Your task to perform on an android device: manage bookmarks in the chrome app Image 0: 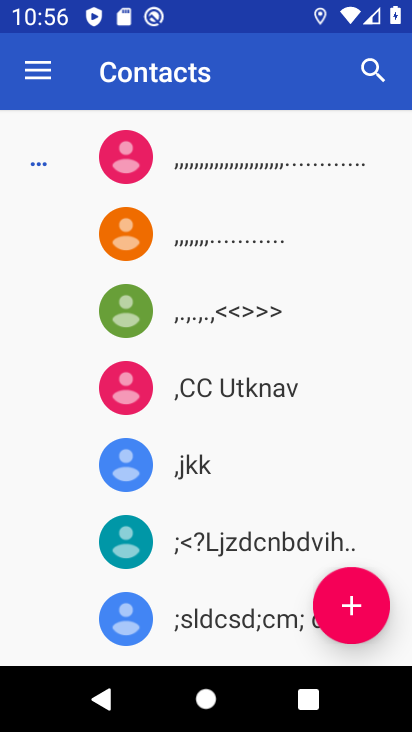
Step 0: press home button
Your task to perform on an android device: manage bookmarks in the chrome app Image 1: 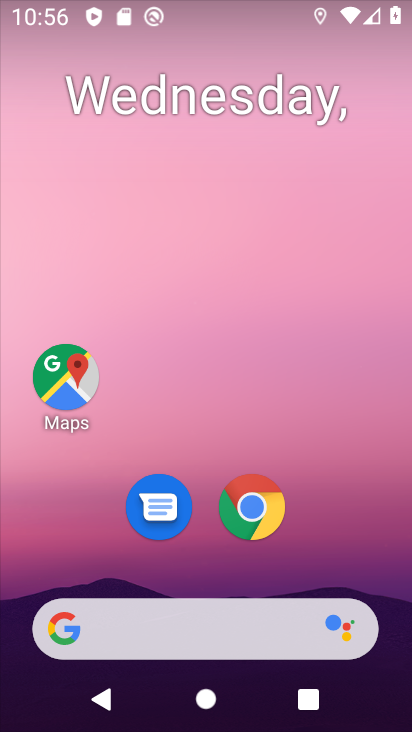
Step 1: drag from (334, 537) to (354, 84)
Your task to perform on an android device: manage bookmarks in the chrome app Image 2: 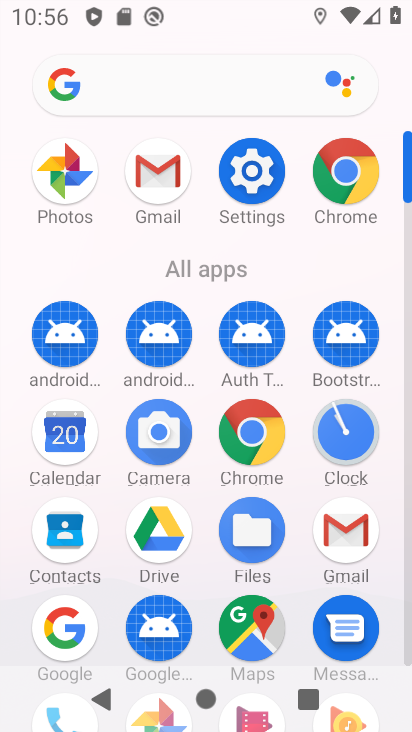
Step 2: click (254, 418)
Your task to perform on an android device: manage bookmarks in the chrome app Image 3: 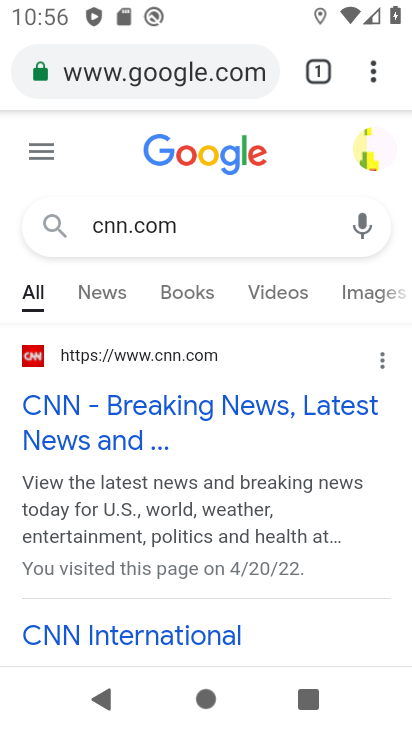
Step 3: click (371, 75)
Your task to perform on an android device: manage bookmarks in the chrome app Image 4: 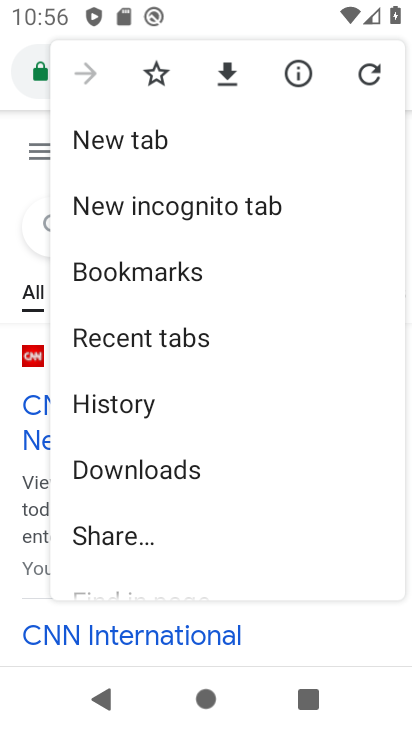
Step 4: click (180, 272)
Your task to perform on an android device: manage bookmarks in the chrome app Image 5: 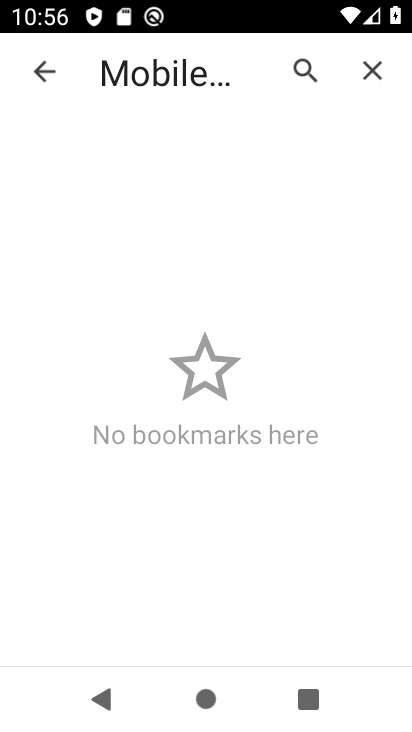
Step 5: task complete